Your task to perform on an android device: Open Reddit.com Image 0: 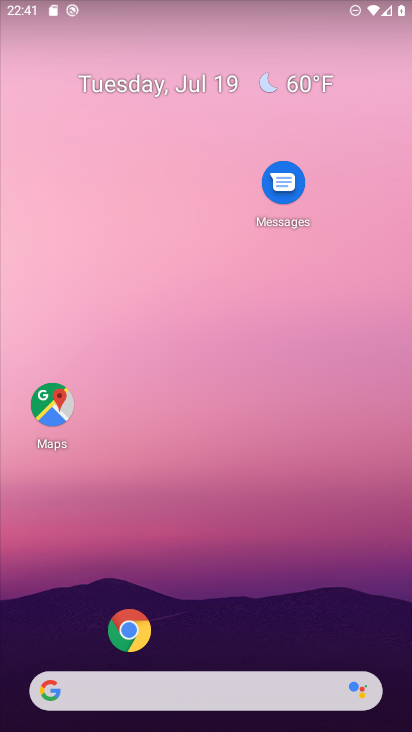
Step 0: click (89, 691)
Your task to perform on an android device: Open Reddit.com Image 1: 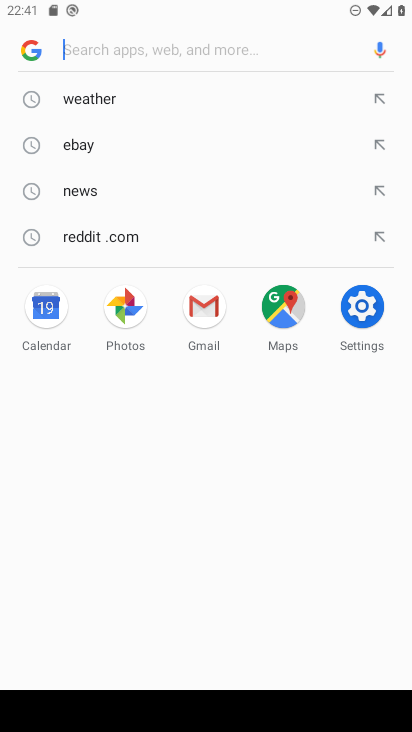
Step 1: type "Reddit.com"
Your task to perform on an android device: Open Reddit.com Image 2: 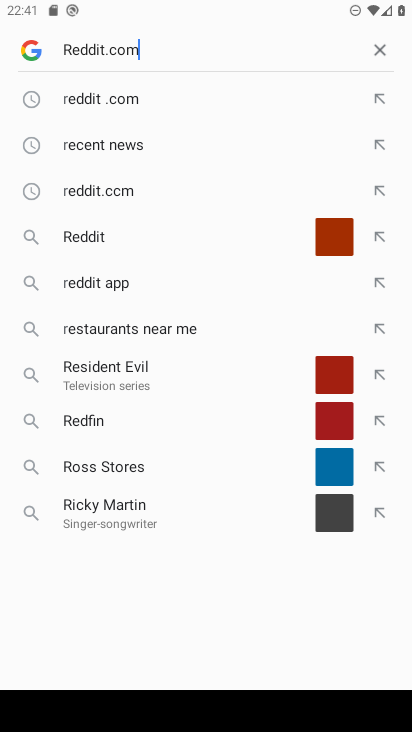
Step 2: type ""
Your task to perform on an android device: Open Reddit.com Image 3: 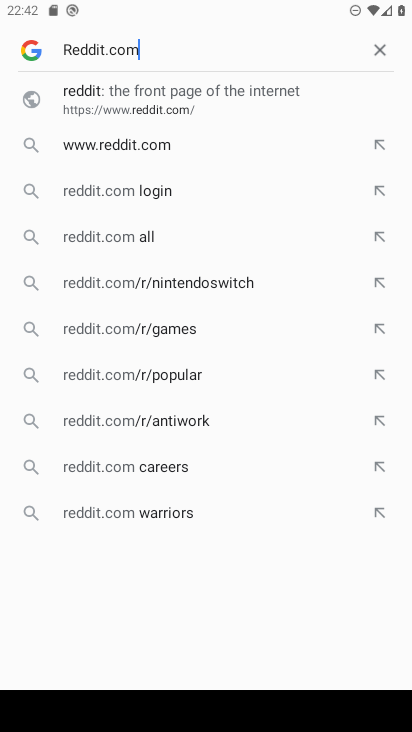
Step 3: type ""
Your task to perform on an android device: Open Reddit.com Image 4: 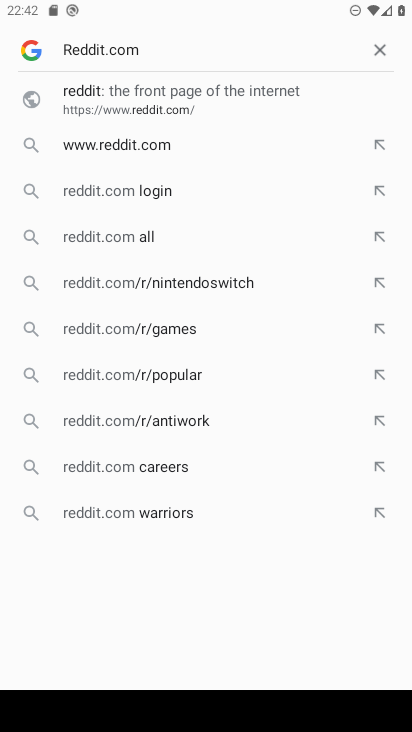
Step 4: type ""
Your task to perform on an android device: Open Reddit.com Image 5: 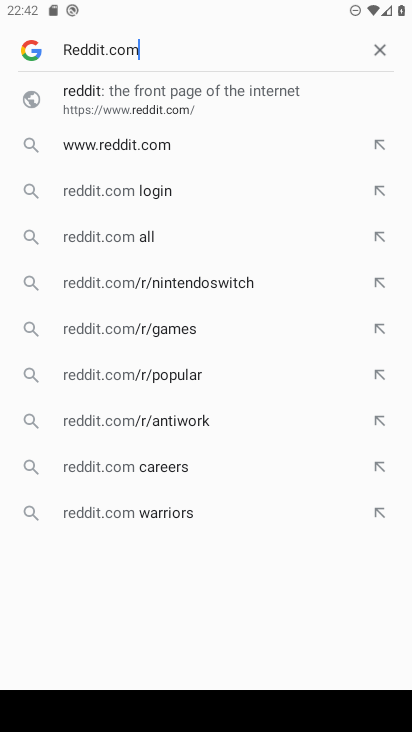
Step 5: type ""
Your task to perform on an android device: Open Reddit.com Image 6: 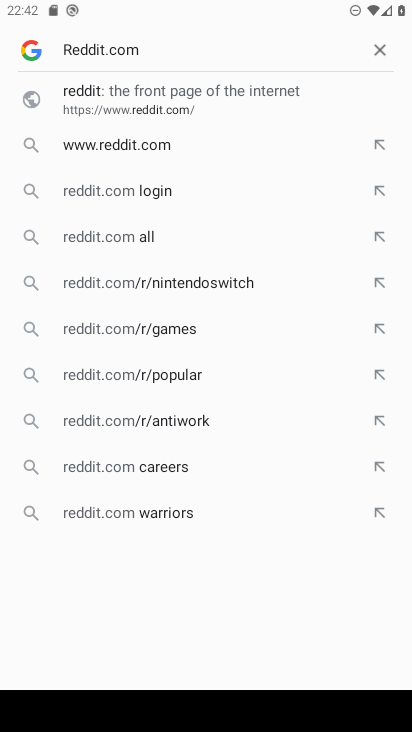
Step 6: click (79, 96)
Your task to perform on an android device: Open Reddit.com Image 7: 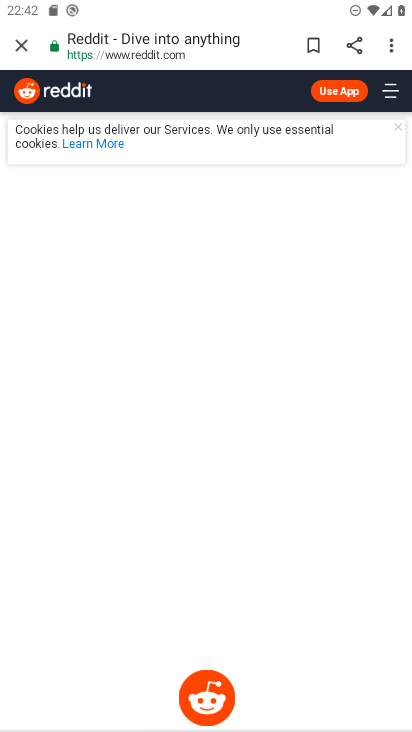
Step 7: task complete